Your task to perform on an android device: toggle airplane mode Image 0: 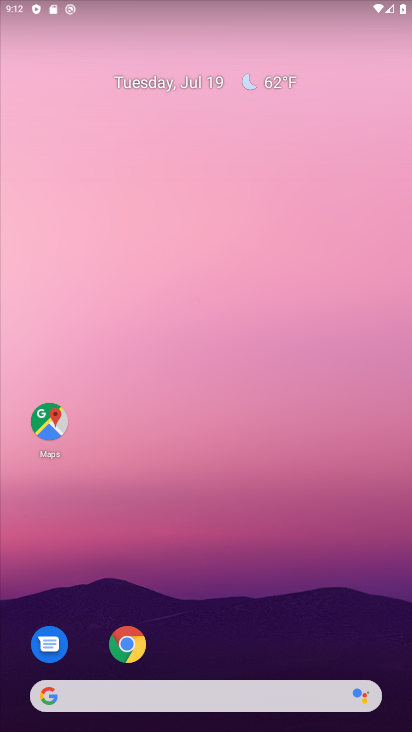
Step 0: drag from (173, 652) to (269, 149)
Your task to perform on an android device: toggle airplane mode Image 1: 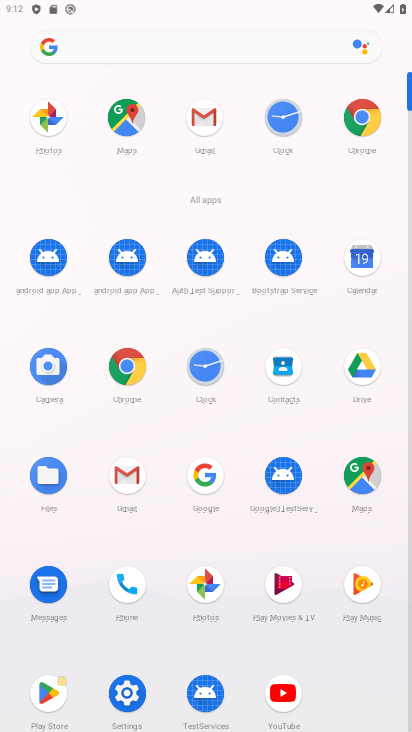
Step 1: click (130, 681)
Your task to perform on an android device: toggle airplane mode Image 2: 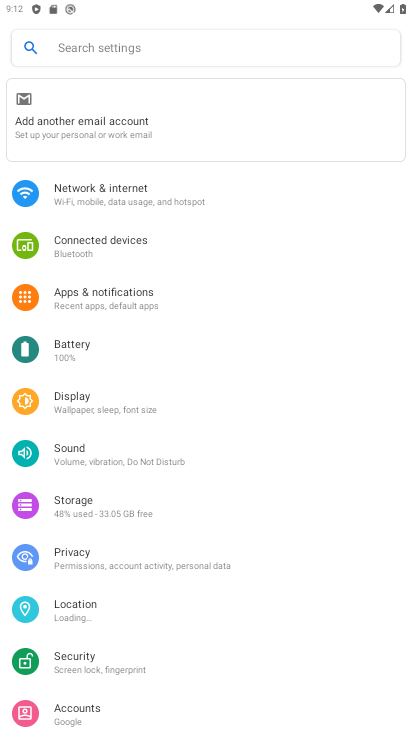
Step 2: click (163, 196)
Your task to perform on an android device: toggle airplane mode Image 3: 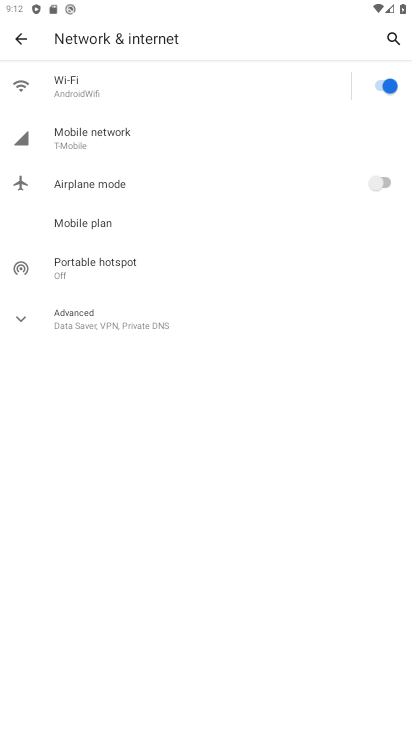
Step 3: click (384, 171)
Your task to perform on an android device: toggle airplane mode Image 4: 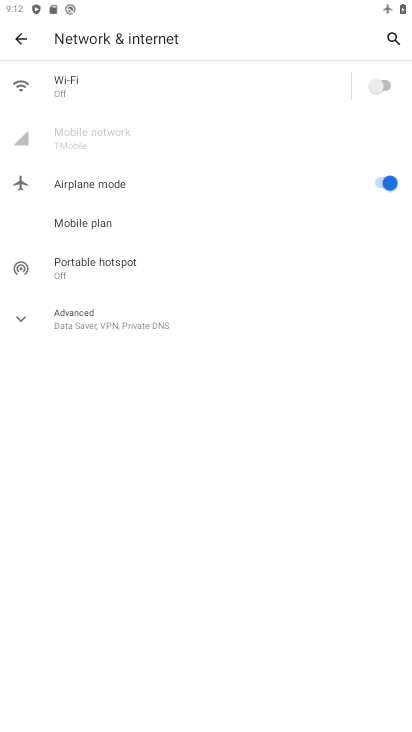
Step 4: task complete